Your task to perform on an android device: find photos in the google photos app Image 0: 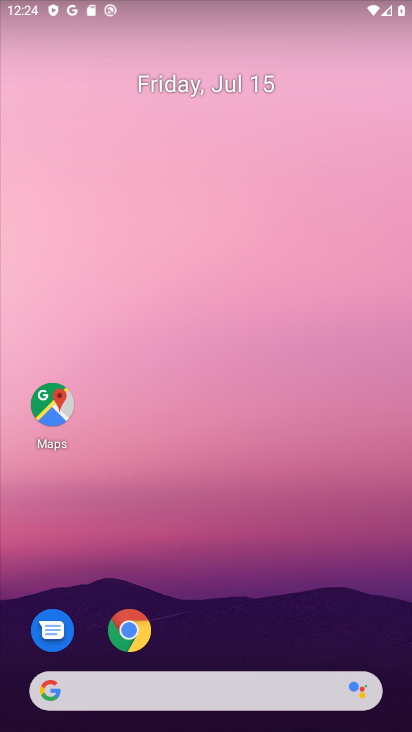
Step 0: drag from (307, 639) to (181, 55)
Your task to perform on an android device: find photos in the google photos app Image 1: 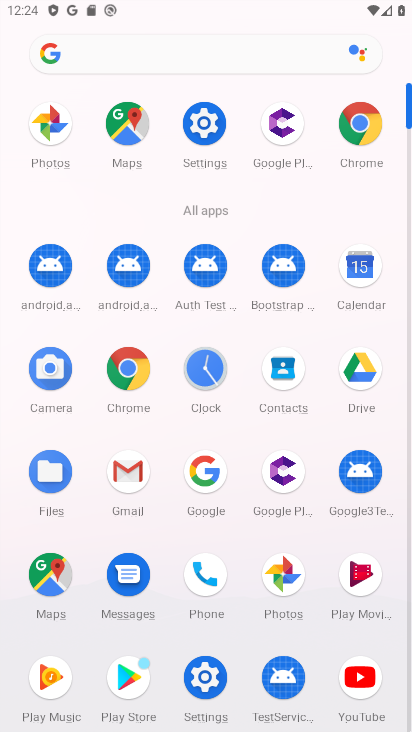
Step 1: click (282, 578)
Your task to perform on an android device: find photos in the google photos app Image 2: 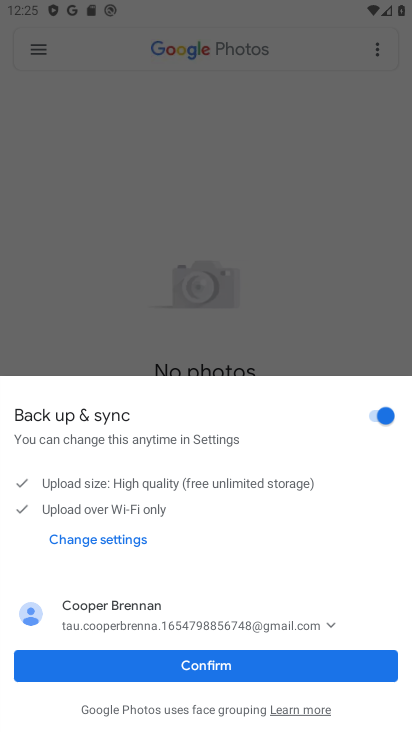
Step 2: click (222, 660)
Your task to perform on an android device: find photos in the google photos app Image 3: 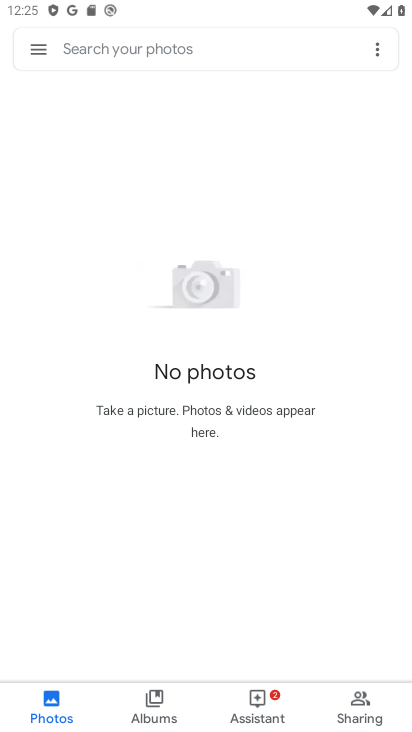
Step 3: task complete